Your task to perform on an android device: turn off location Image 0: 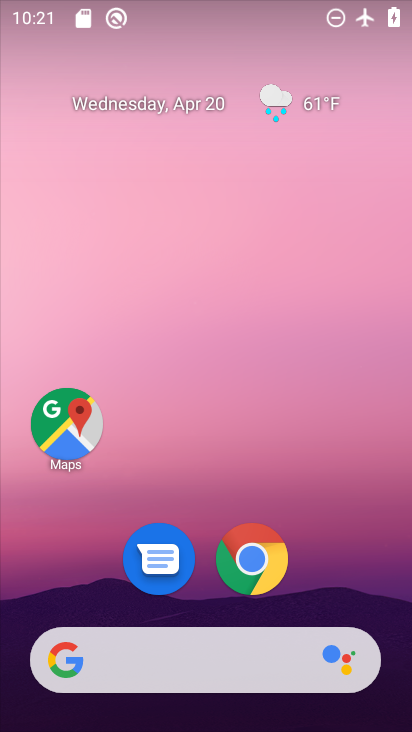
Step 0: drag from (393, 618) to (308, 153)
Your task to perform on an android device: turn off location Image 1: 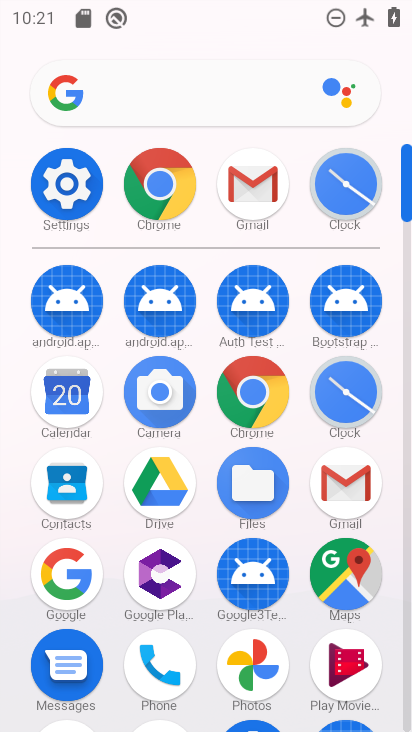
Step 1: click (408, 666)
Your task to perform on an android device: turn off location Image 2: 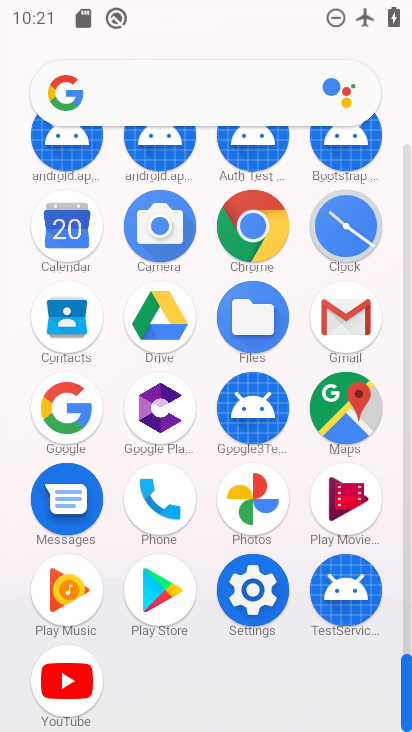
Step 2: click (252, 586)
Your task to perform on an android device: turn off location Image 3: 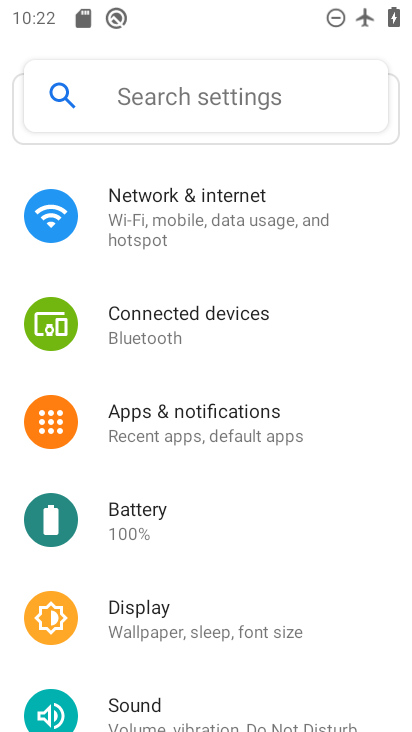
Step 3: drag from (306, 630) to (302, 439)
Your task to perform on an android device: turn off location Image 4: 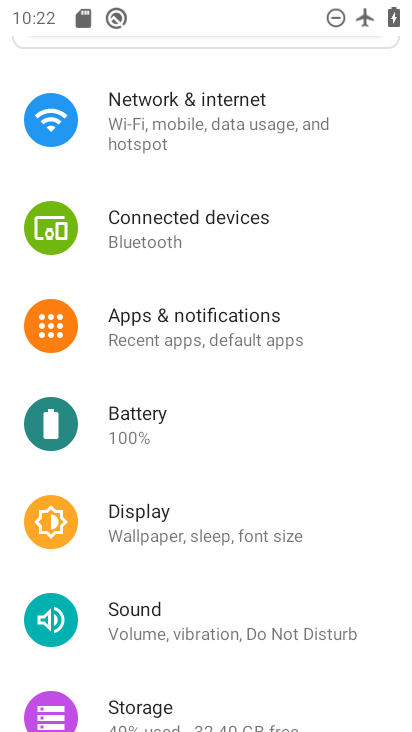
Step 4: drag from (335, 572) to (298, 395)
Your task to perform on an android device: turn off location Image 5: 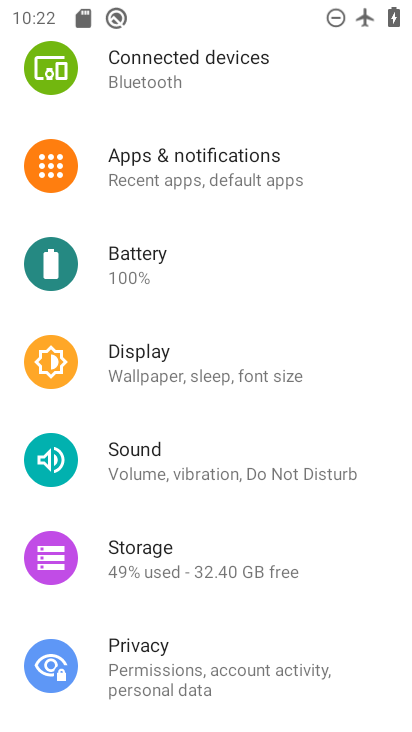
Step 5: drag from (319, 562) to (302, 360)
Your task to perform on an android device: turn off location Image 6: 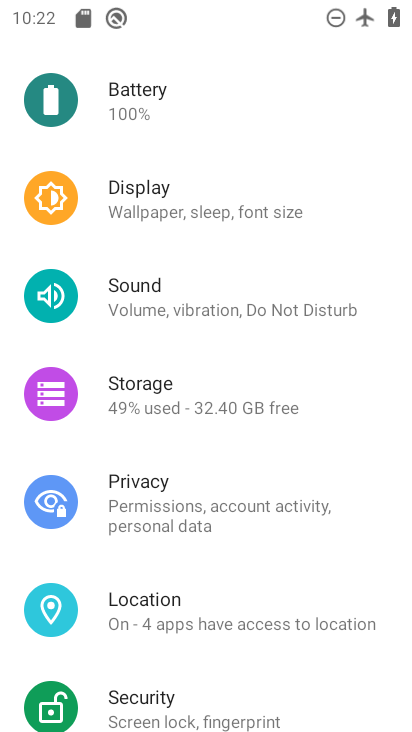
Step 6: click (160, 602)
Your task to perform on an android device: turn off location Image 7: 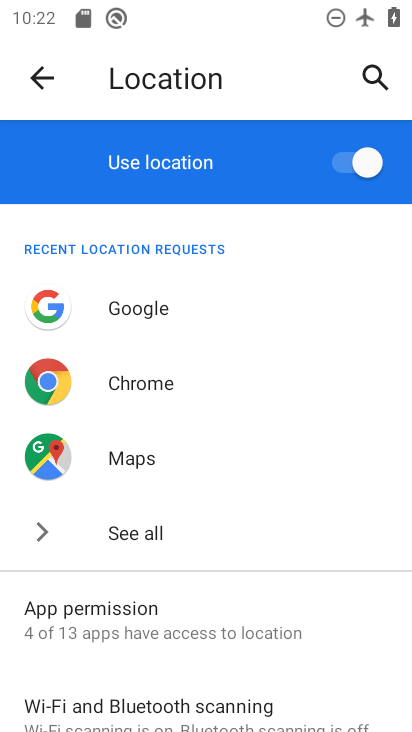
Step 7: click (340, 158)
Your task to perform on an android device: turn off location Image 8: 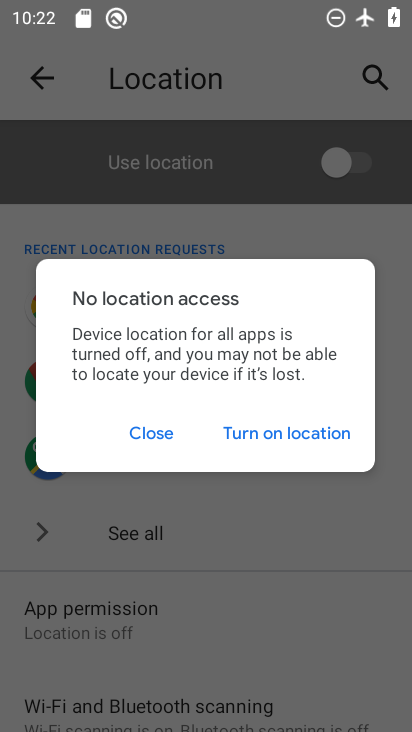
Step 8: click (154, 426)
Your task to perform on an android device: turn off location Image 9: 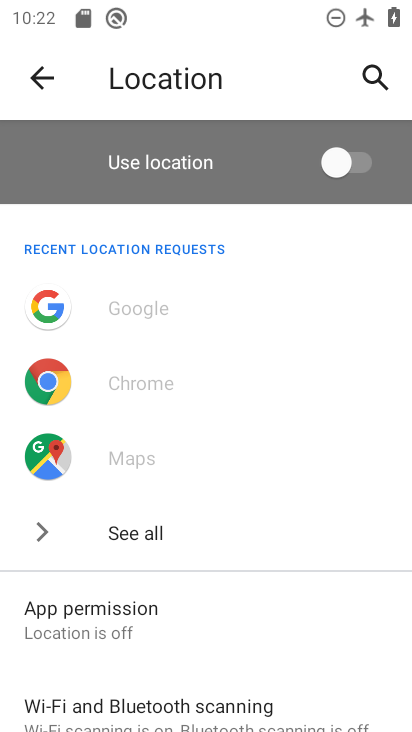
Step 9: task complete